Your task to perform on an android device: change the clock display to digital Image 0: 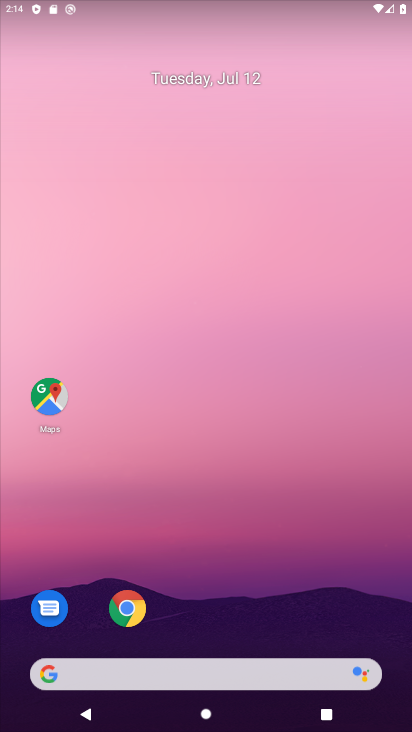
Step 0: drag from (282, 558) to (221, 167)
Your task to perform on an android device: change the clock display to digital Image 1: 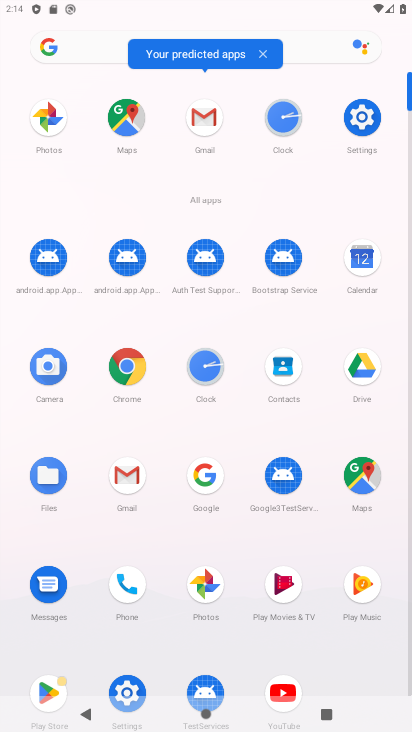
Step 1: click (278, 120)
Your task to perform on an android device: change the clock display to digital Image 2: 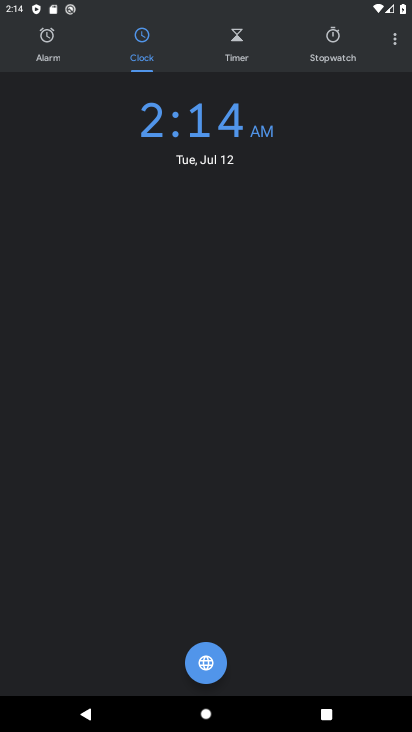
Step 2: click (394, 39)
Your task to perform on an android device: change the clock display to digital Image 3: 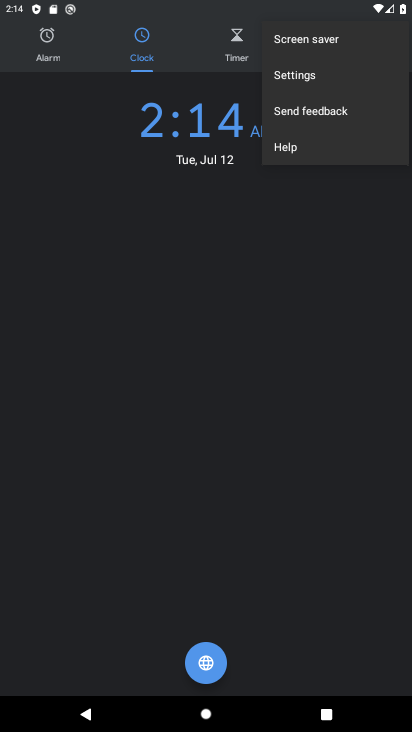
Step 3: click (310, 75)
Your task to perform on an android device: change the clock display to digital Image 4: 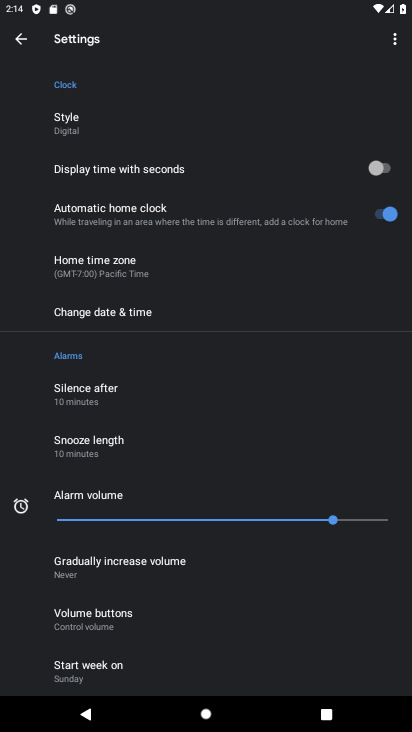
Step 4: task complete